Your task to perform on an android device: Open battery settings Image 0: 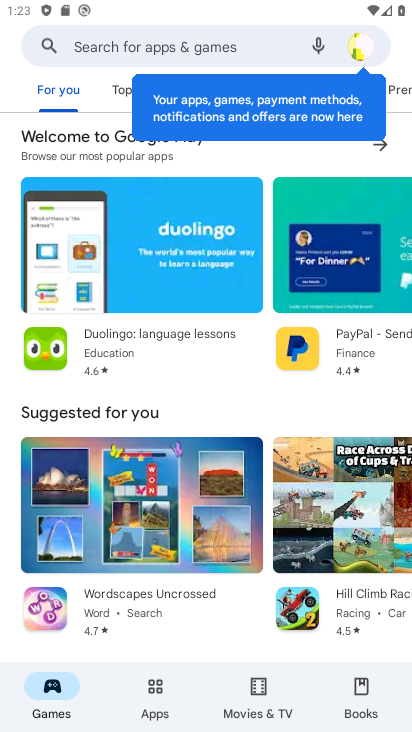
Step 0: press back button
Your task to perform on an android device: Open battery settings Image 1: 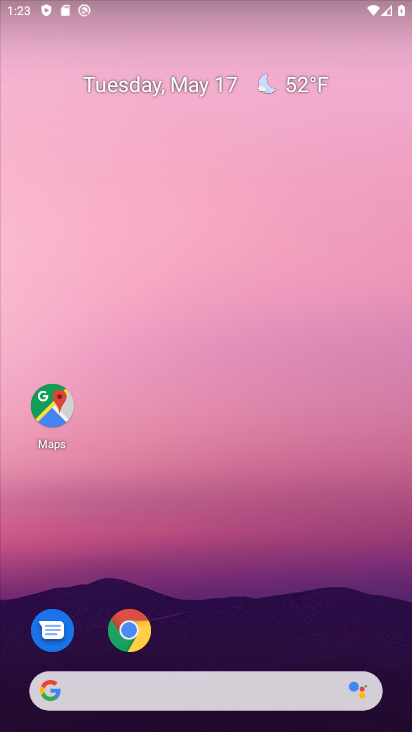
Step 1: drag from (229, 598) to (301, 57)
Your task to perform on an android device: Open battery settings Image 2: 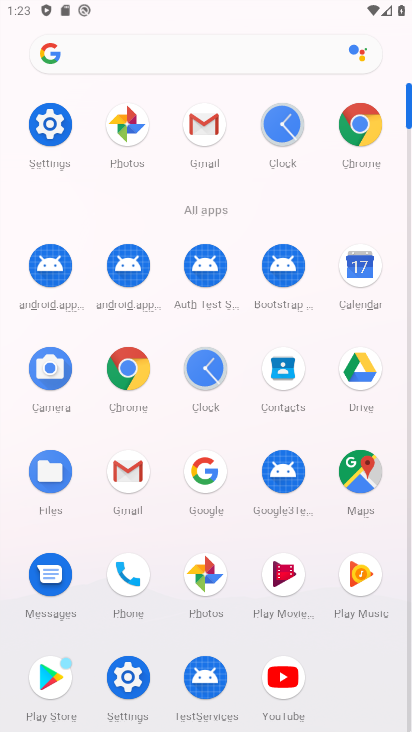
Step 2: click (55, 123)
Your task to perform on an android device: Open battery settings Image 3: 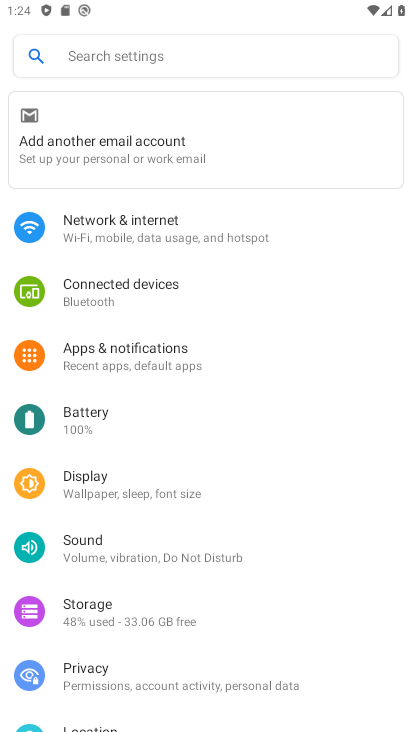
Step 3: click (102, 410)
Your task to perform on an android device: Open battery settings Image 4: 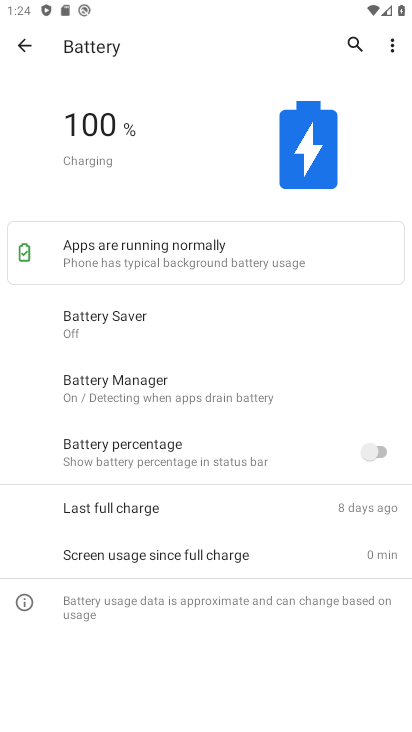
Step 4: task complete